Your task to perform on an android device: Go to privacy settings Image 0: 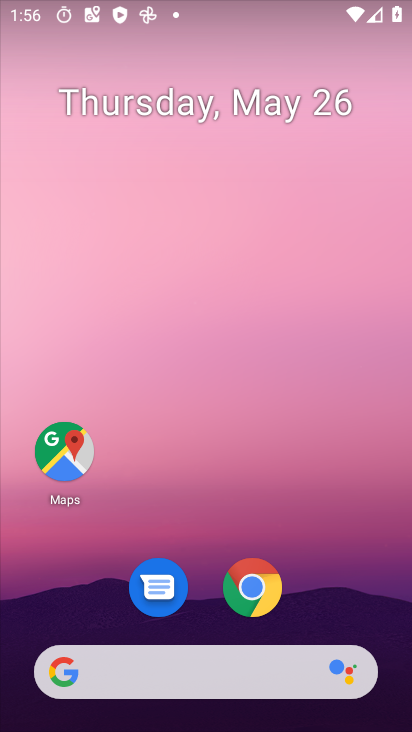
Step 0: drag from (378, 614) to (374, 151)
Your task to perform on an android device: Go to privacy settings Image 1: 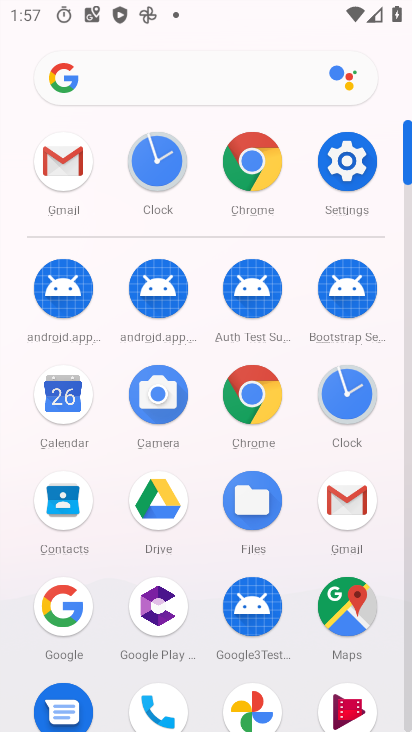
Step 1: click (351, 165)
Your task to perform on an android device: Go to privacy settings Image 2: 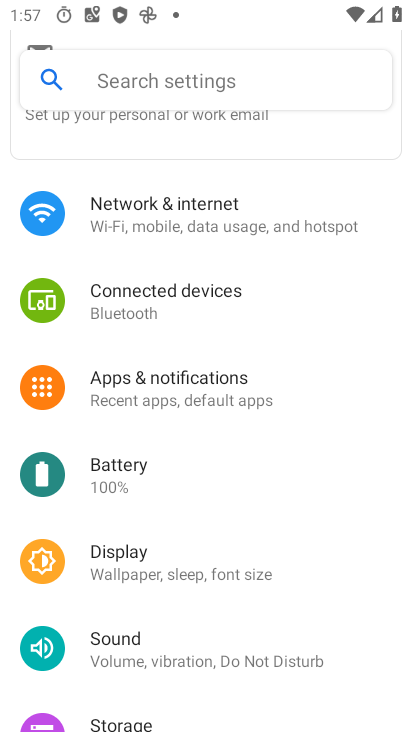
Step 2: drag from (346, 402) to (353, 341)
Your task to perform on an android device: Go to privacy settings Image 3: 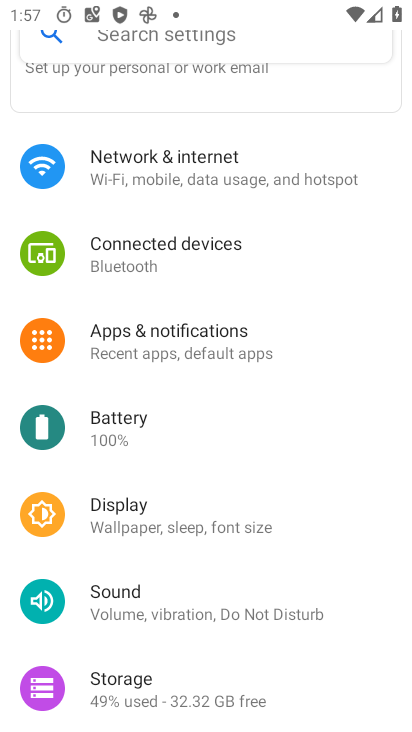
Step 3: drag from (347, 464) to (342, 368)
Your task to perform on an android device: Go to privacy settings Image 4: 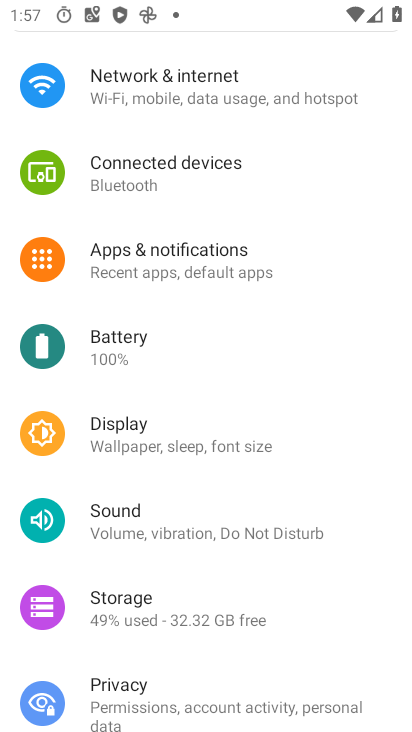
Step 4: drag from (336, 478) to (340, 401)
Your task to perform on an android device: Go to privacy settings Image 5: 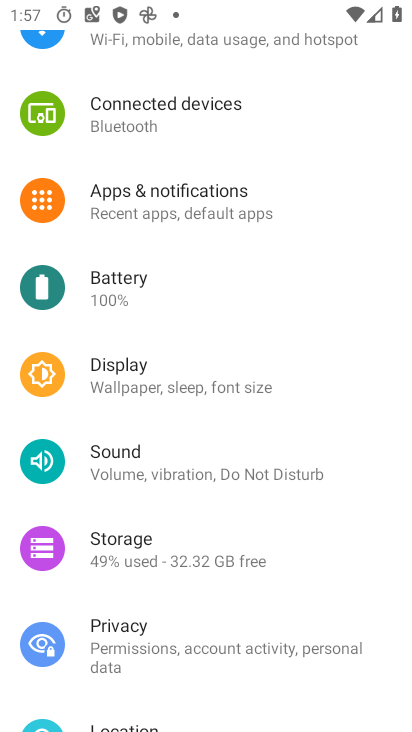
Step 5: drag from (331, 470) to (342, 399)
Your task to perform on an android device: Go to privacy settings Image 6: 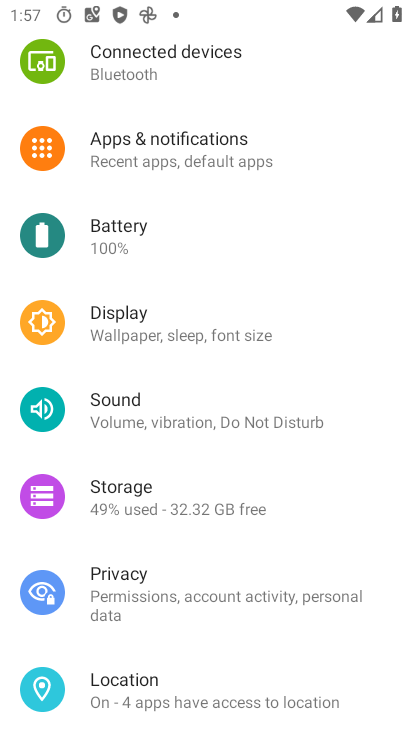
Step 6: drag from (339, 467) to (347, 406)
Your task to perform on an android device: Go to privacy settings Image 7: 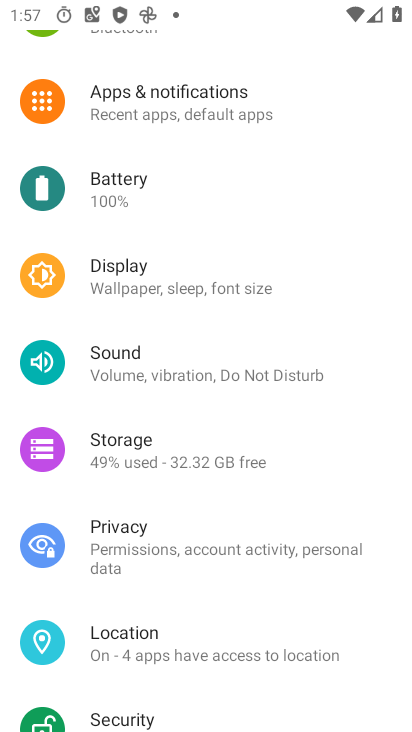
Step 7: drag from (342, 475) to (351, 392)
Your task to perform on an android device: Go to privacy settings Image 8: 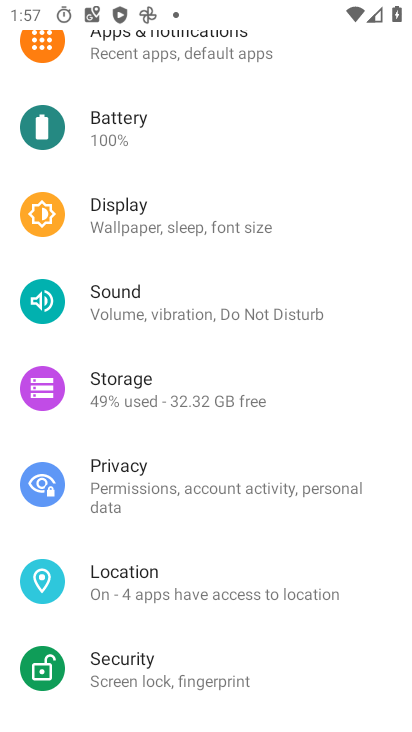
Step 8: drag from (351, 453) to (351, 404)
Your task to perform on an android device: Go to privacy settings Image 9: 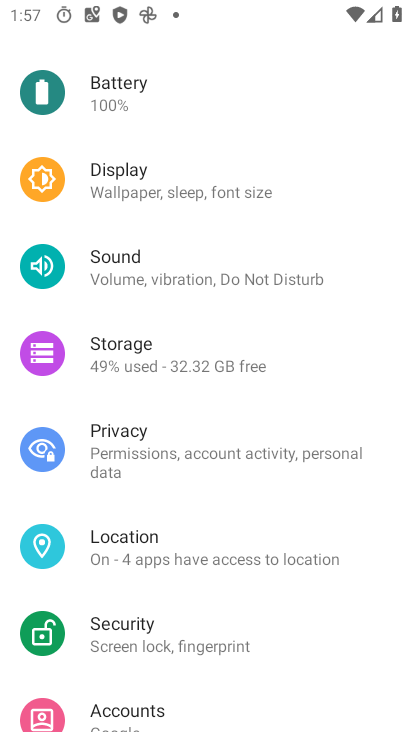
Step 9: drag from (355, 480) to (358, 410)
Your task to perform on an android device: Go to privacy settings Image 10: 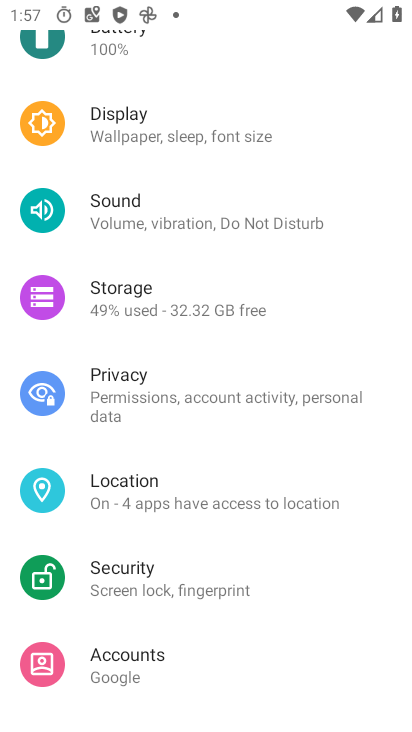
Step 10: drag from (364, 502) to (365, 441)
Your task to perform on an android device: Go to privacy settings Image 11: 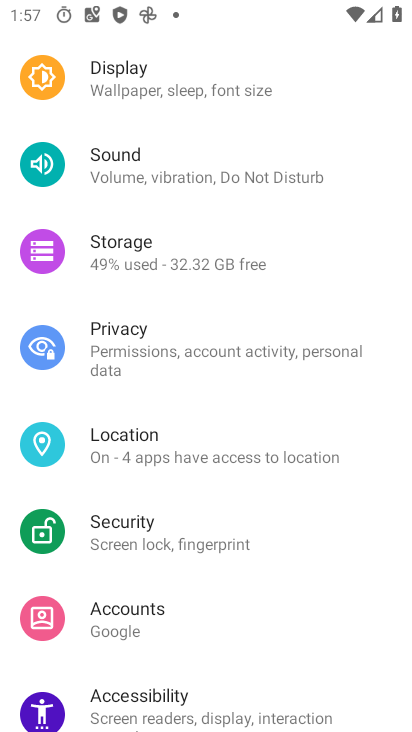
Step 11: drag from (363, 491) to (362, 444)
Your task to perform on an android device: Go to privacy settings Image 12: 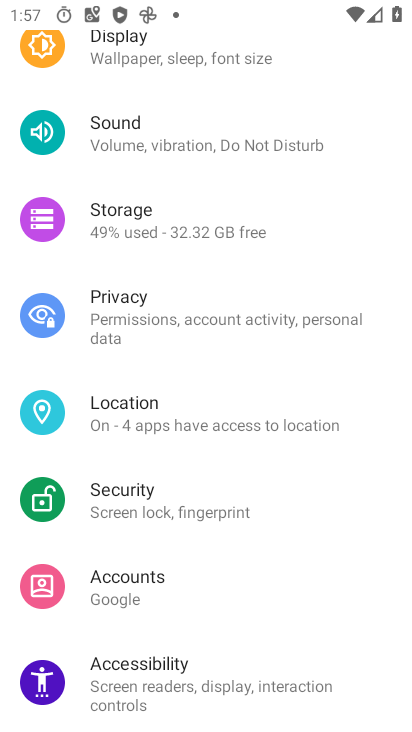
Step 12: drag from (355, 501) to (360, 447)
Your task to perform on an android device: Go to privacy settings Image 13: 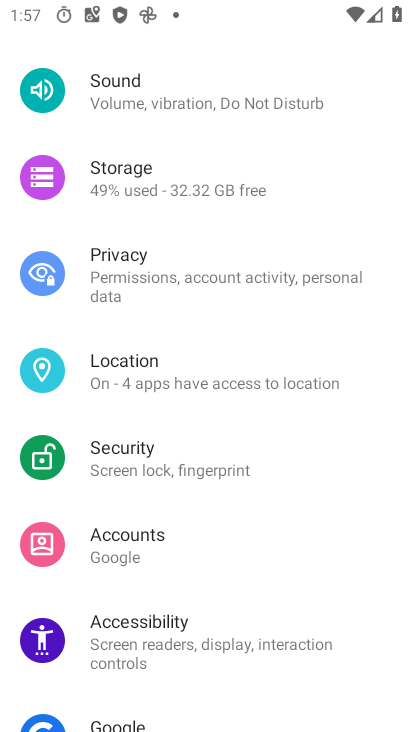
Step 13: drag from (353, 494) to (355, 453)
Your task to perform on an android device: Go to privacy settings Image 14: 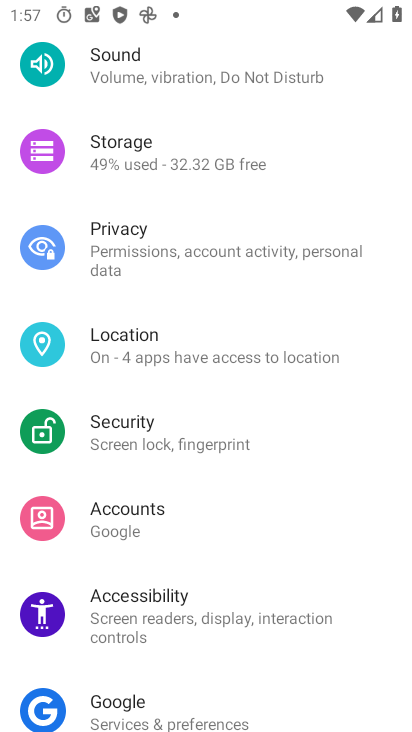
Step 14: click (350, 488)
Your task to perform on an android device: Go to privacy settings Image 15: 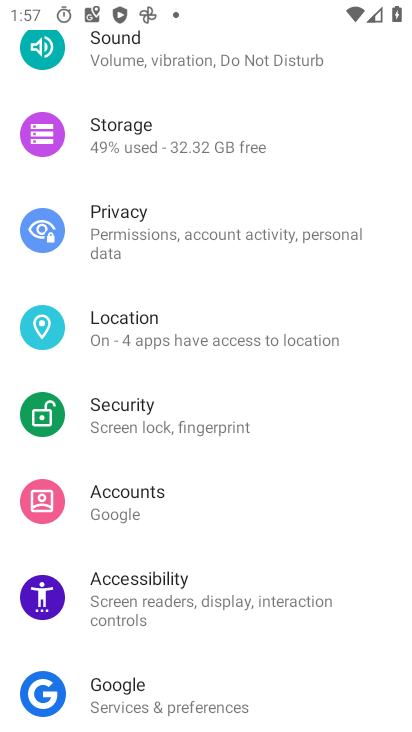
Step 15: click (349, 473)
Your task to perform on an android device: Go to privacy settings Image 16: 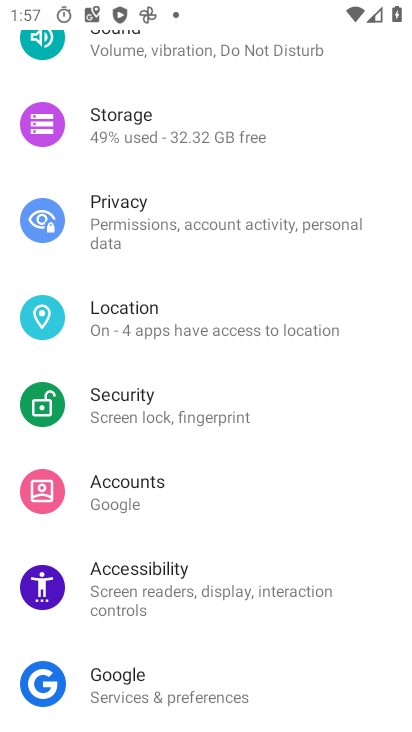
Step 16: drag from (335, 358) to (337, 431)
Your task to perform on an android device: Go to privacy settings Image 17: 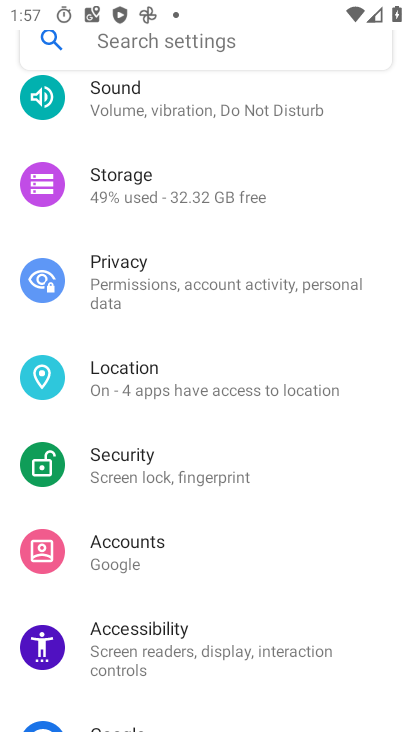
Step 17: click (339, 361)
Your task to perform on an android device: Go to privacy settings Image 18: 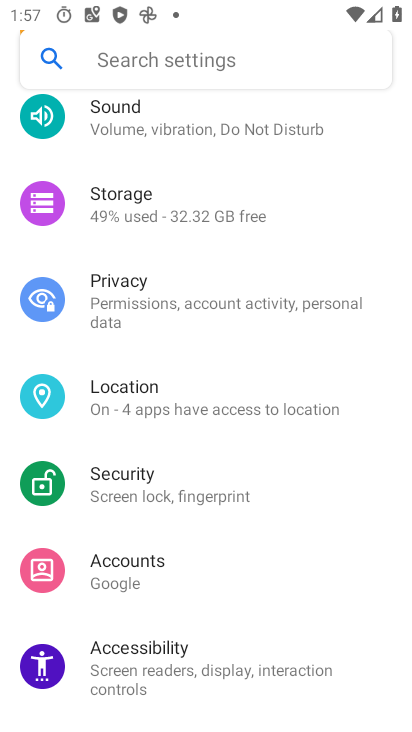
Step 18: click (289, 286)
Your task to perform on an android device: Go to privacy settings Image 19: 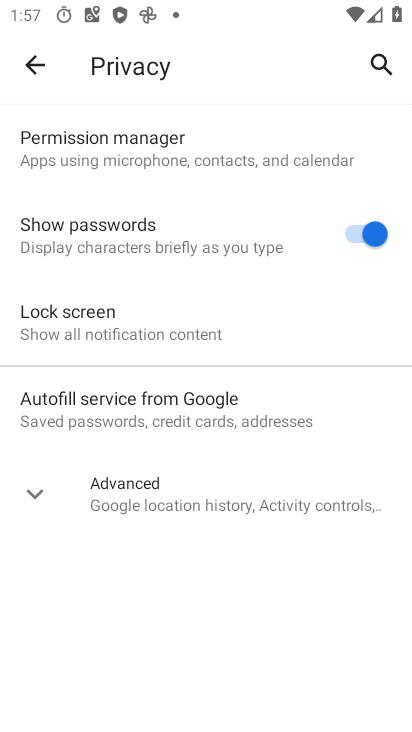
Step 19: task complete